Your task to perform on an android device: star an email in the gmail app Image 0: 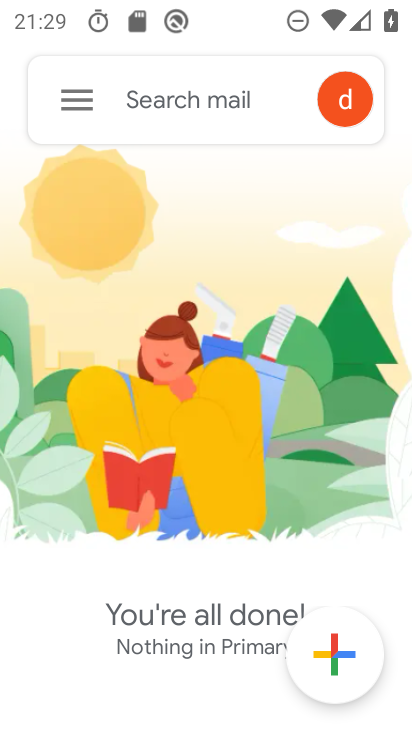
Step 0: press home button
Your task to perform on an android device: star an email in the gmail app Image 1: 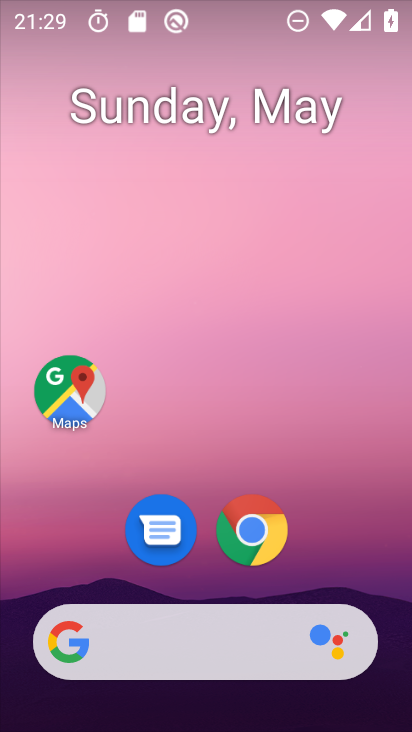
Step 1: drag from (324, 677) to (271, 63)
Your task to perform on an android device: star an email in the gmail app Image 2: 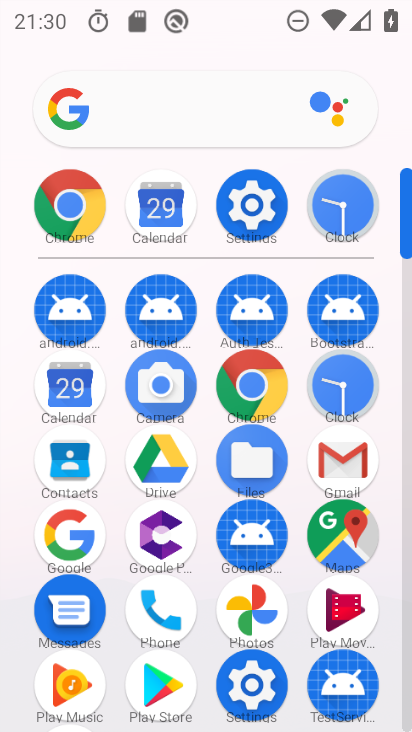
Step 2: click (337, 473)
Your task to perform on an android device: star an email in the gmail app Image 3: 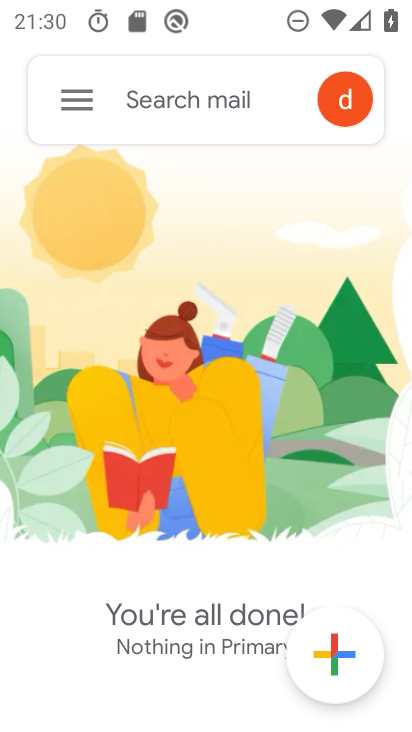
Step 3: click (72, 106)
Your task to perform on an android device: star an email in the gmail app Image 4: 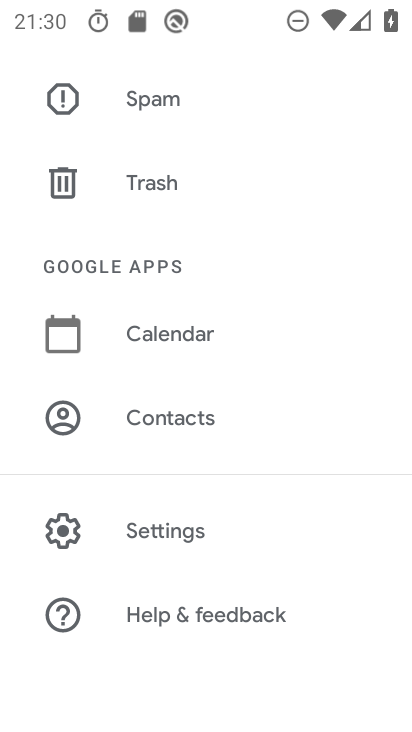
Step 4: drag from (172, 285) to (278, 542)
Your task to perform on an android device: star an email in the gmail app Image 5: 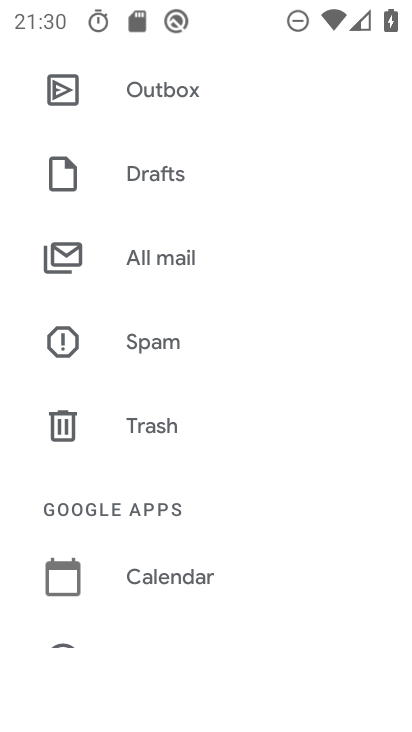
Step 5: drag from (164, 211) to (181, 417)
Your task to perform on an android device: star an email in the gmail app Image 6: 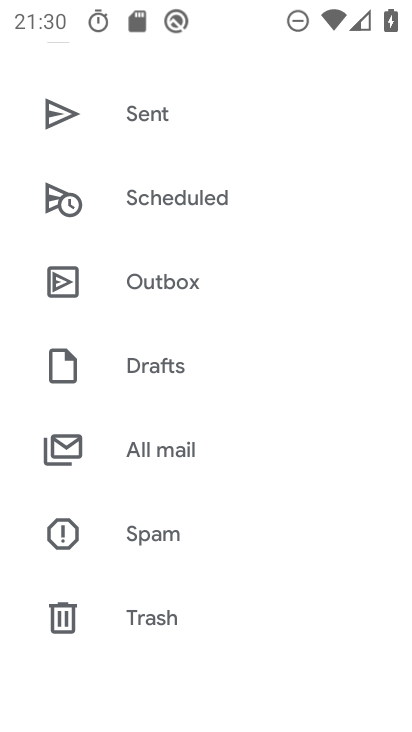
Step 6: drag from (141, 112) to (153, 279)
Your task to perform on an android device: star an email in the gmail app Image 7: 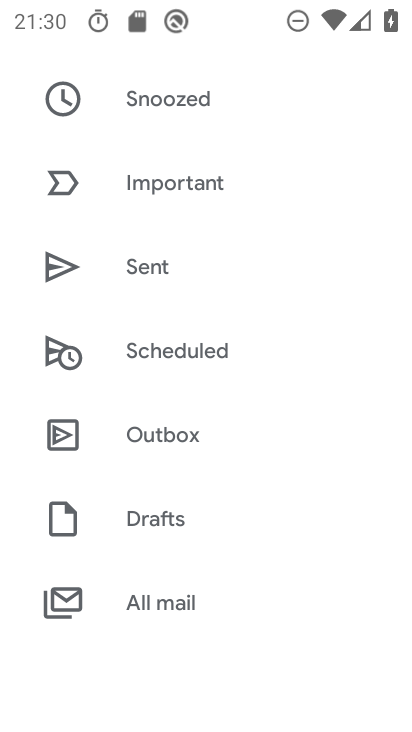
Step 7: drag from (152, 120) to (171, 217)
Your task to perform on an android device: star an email in the gmail app Image 8: 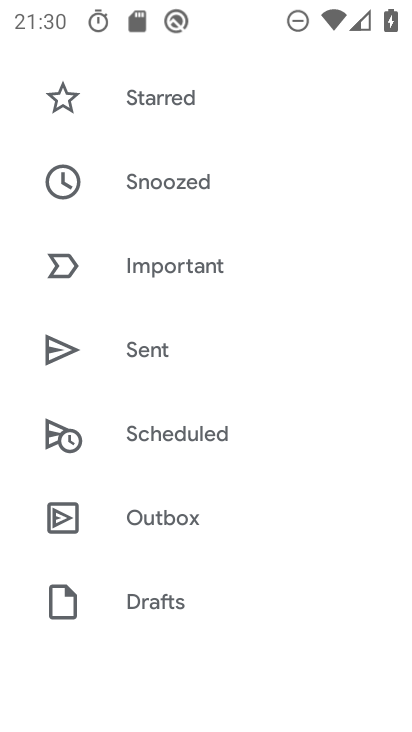
Step 8: click (146, 104)
Your task to perform on an android device: star an email in the gmail app Image 9: 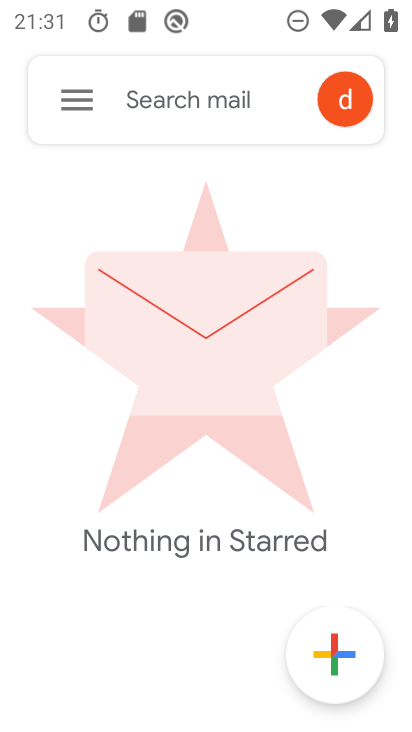
Step 9: task complete